Your task to perform on an android device: turn off translation in the chrome app Image 0: 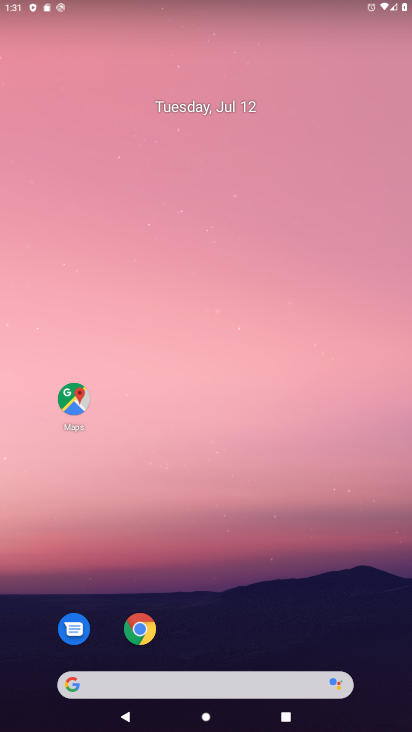
Step 0: drag from (209, 676) to (193, 130)
Your task to perform on an android device: turn off translation in the chrome app Image 1: 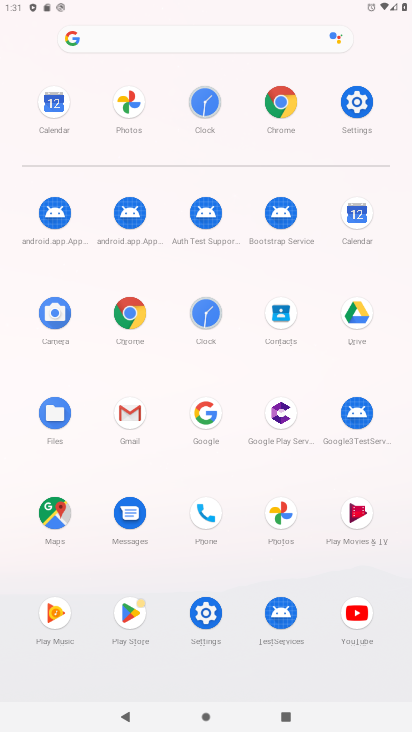
Step 1: click (135, 313)
Your task to perform on an android device: turn off translation in the chrome app Image 2: 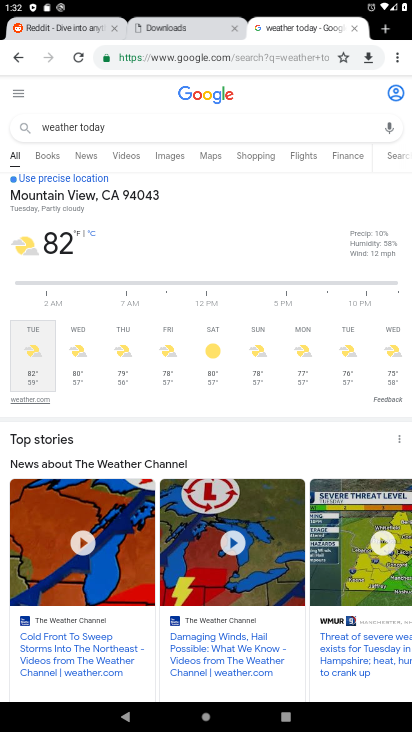
Step 2: drag from (398, 46) to (272, 350)
Your task to perform on an android device: turn off translation in the chrome app Image 3: 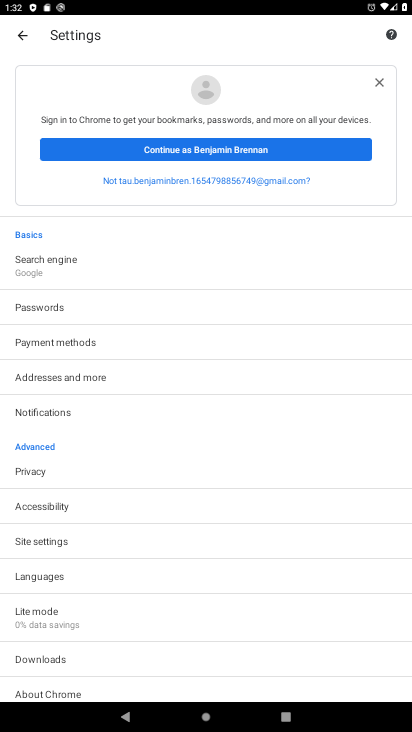
Step 3: click (113, 532)
Your task to perform on an android device: turn off translation in the chrome app Image 4: 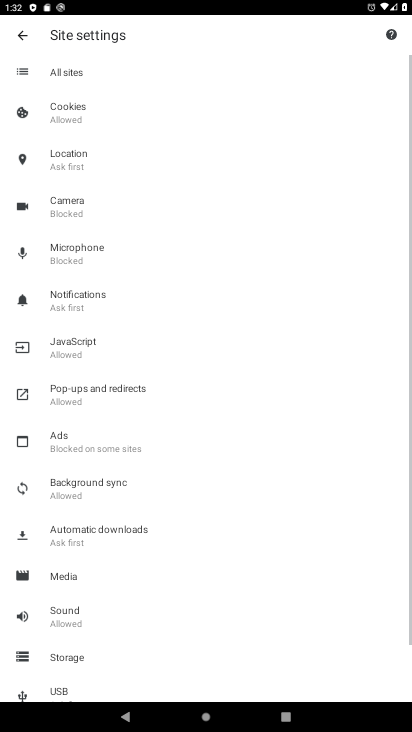
Step 4: press back button
Your task to perform on an android device: turn off translation in the chrome app Image 5: 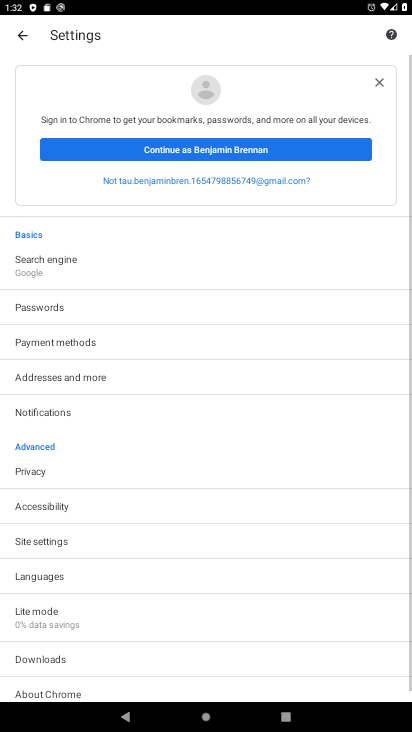
Step 5: click (86, 583)
Your task to perform on an android device: turn off translation in the chrome app Image 6: 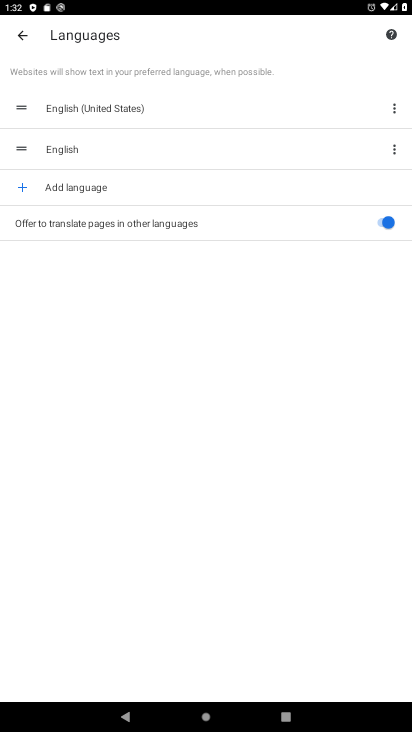
Step 6: click (380, 217)
Your task to perform on an android device: turn off translation in the chrome app Image 7: 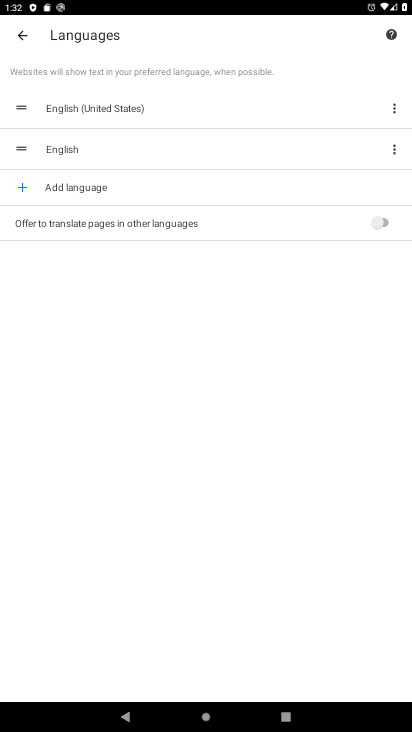
Step 7: task complete